Your task to perform on an android device: Show the shopping cart on ebay. Add asus rog to the cart on ebay Image 0: 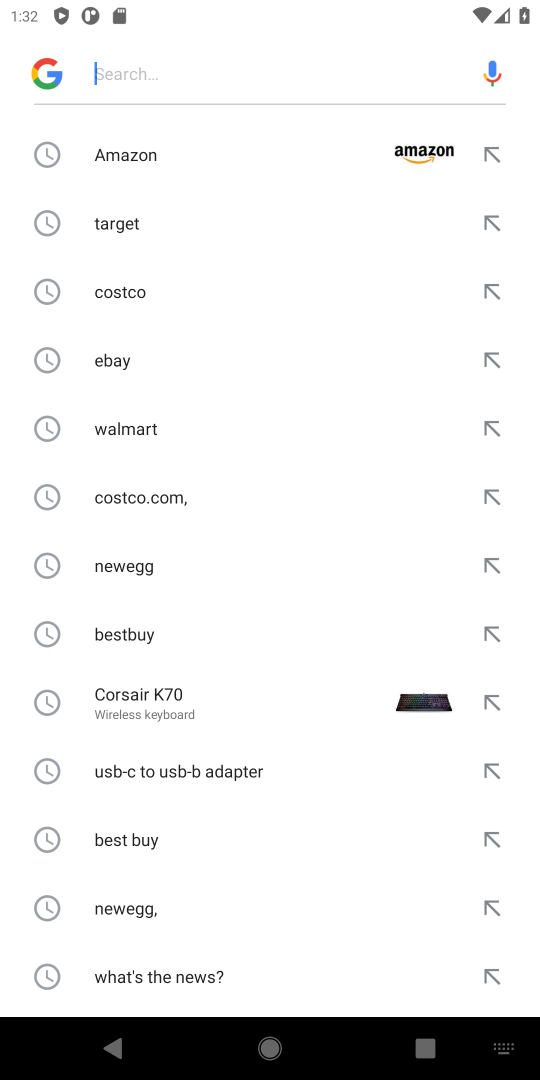
Step 0: press home button
Your task to perform on an android device: Show the shopping cart on ebay. Add asus rog to the cart on ebay Image 1: 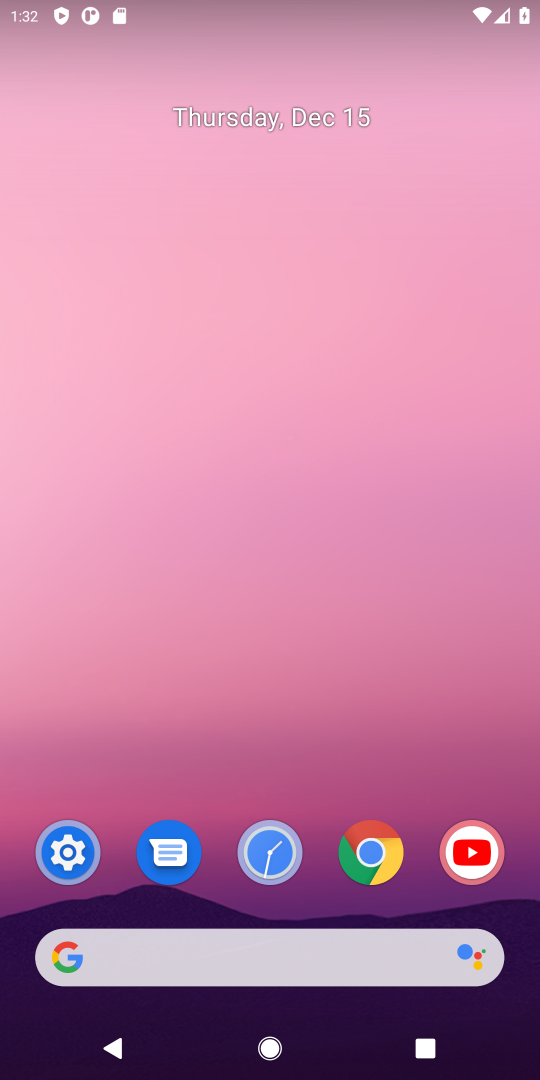
Step 1: click (367, 874)
Your task to perform on an android device: Show the shopping cart on ebay. Add asus rog to the cart on ebay Image 2: 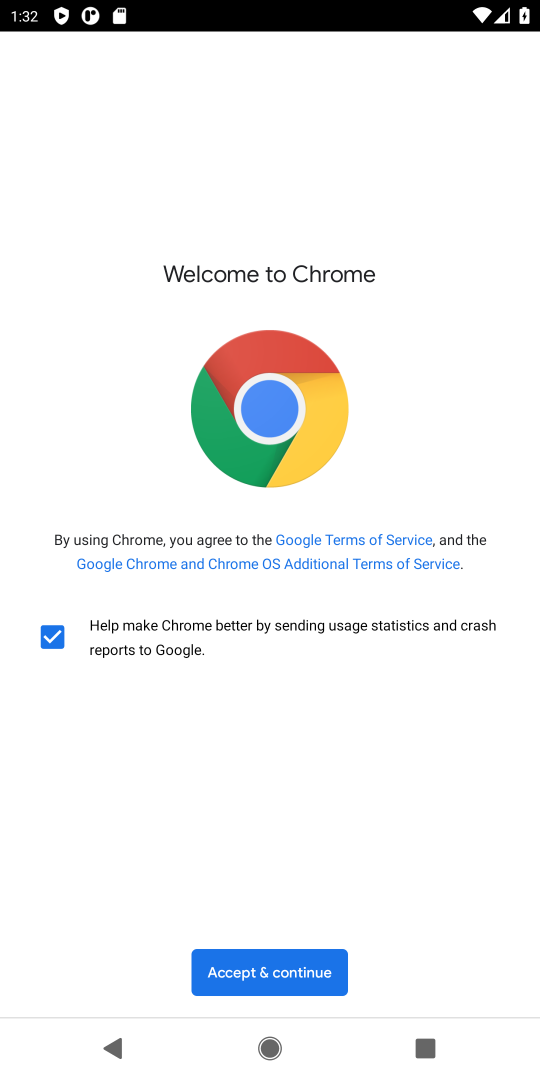
Step 2: click (259, 976)
Your task to perform on an android device: Show the shopping cart on ebay. Add asus rog to the cart on ebay Image 3: 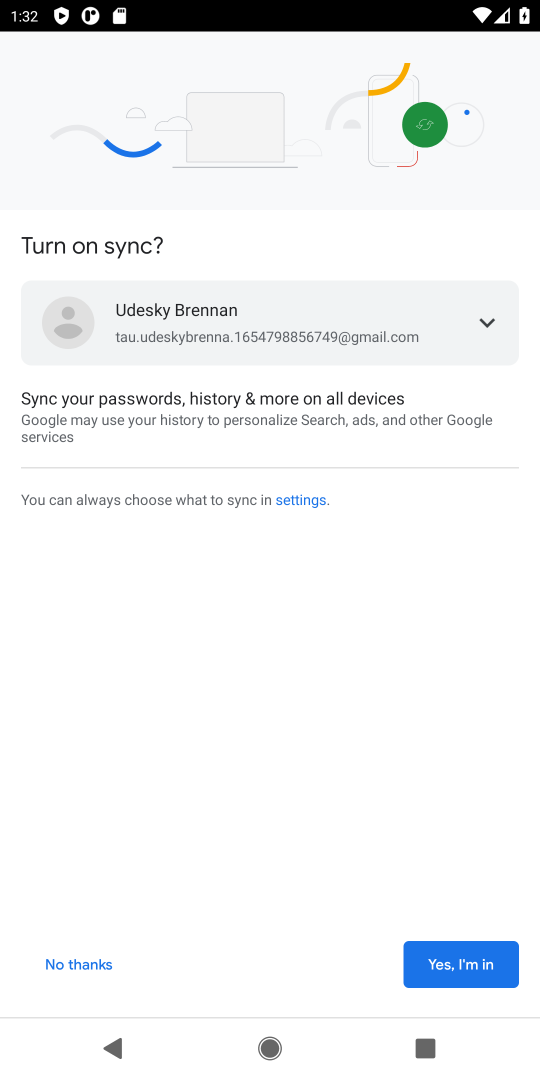
Step 3: click (447, 956)
Your task to perform on an android device: Show the shopping cart on ebay. Add asus rog to the cart on ebay Image 4: 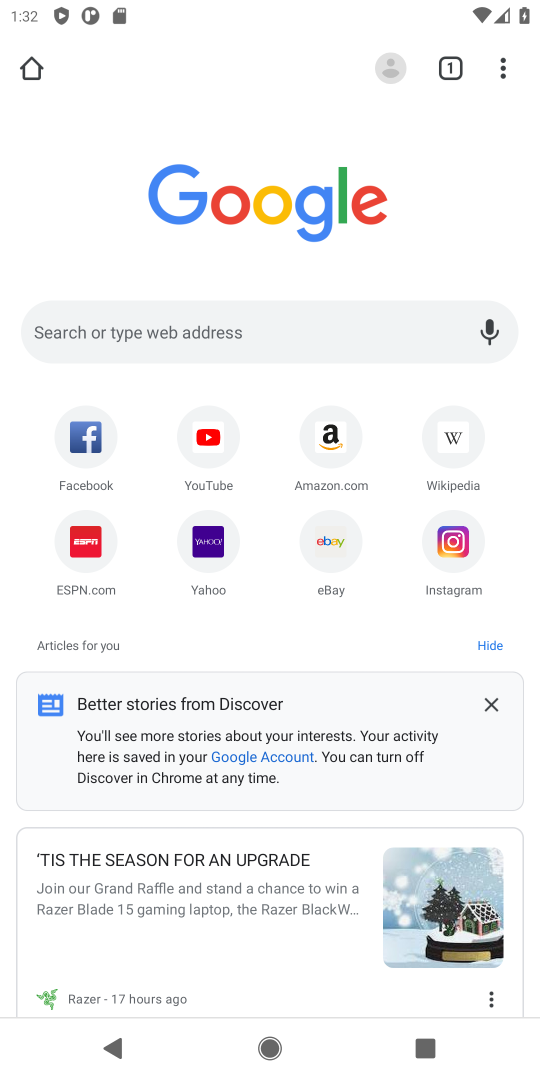
Step 4: click (163, 332)
Your task to perform on an android device: Show the shopping cart on ebay. Add asus rog to the cart on ebay Image 5: 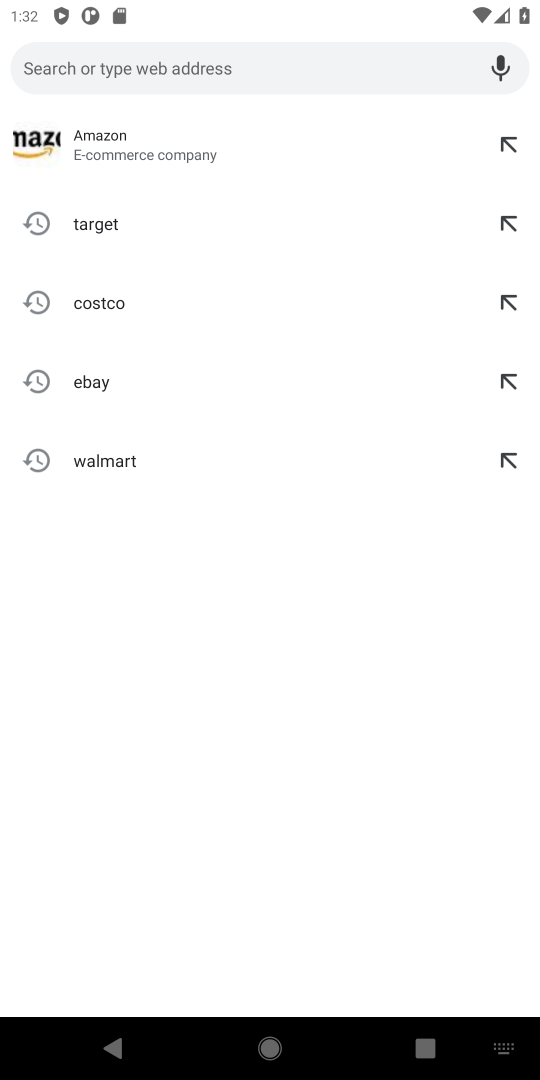
Step 5: type "ebay"
Your task to perform on an android device: Show the shopping cart on ebay. Add asus rog to the cart on ebay Image 6: 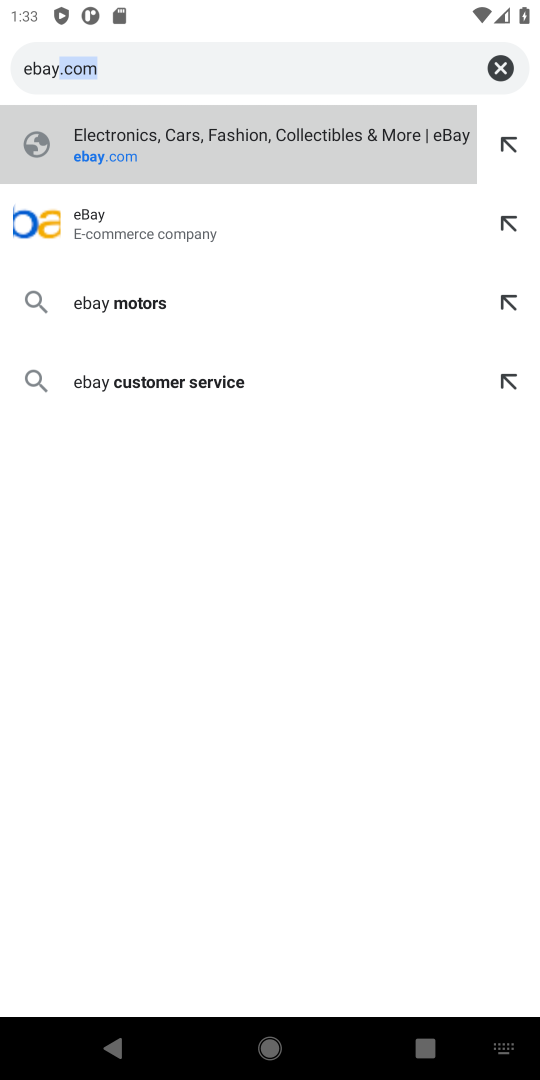
Step 6: click (252, 138)
Your task to perform on an android device: Show the shopping cart on ebay. Add asus rog to the cart on ebay Image 7: 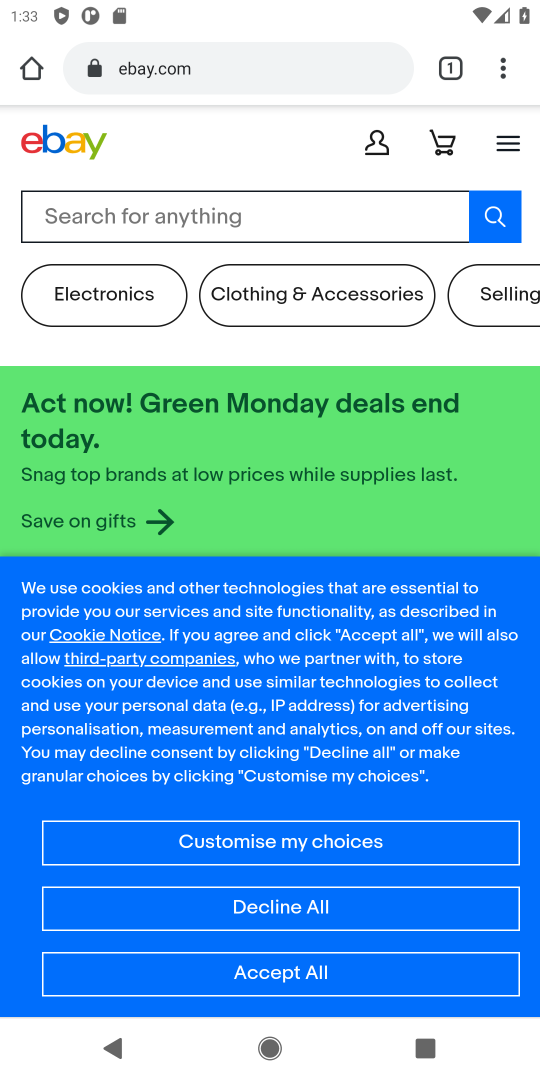
Step 7: click (363, 990)
Your task to perform on an android device: Show the shopping cart on ebay. Add asus rog to the cart on ebay Image 8: 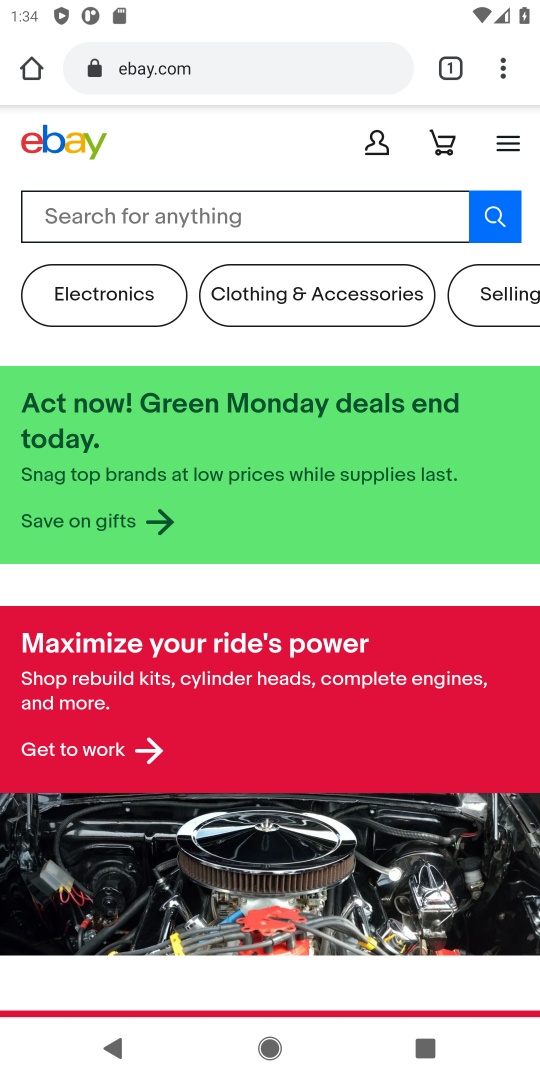
Step 8: click (432, 155)
Your task to perform on an android device: Show the shopping cart on ebay. Add asus rog to the cart on ebay Image 9: 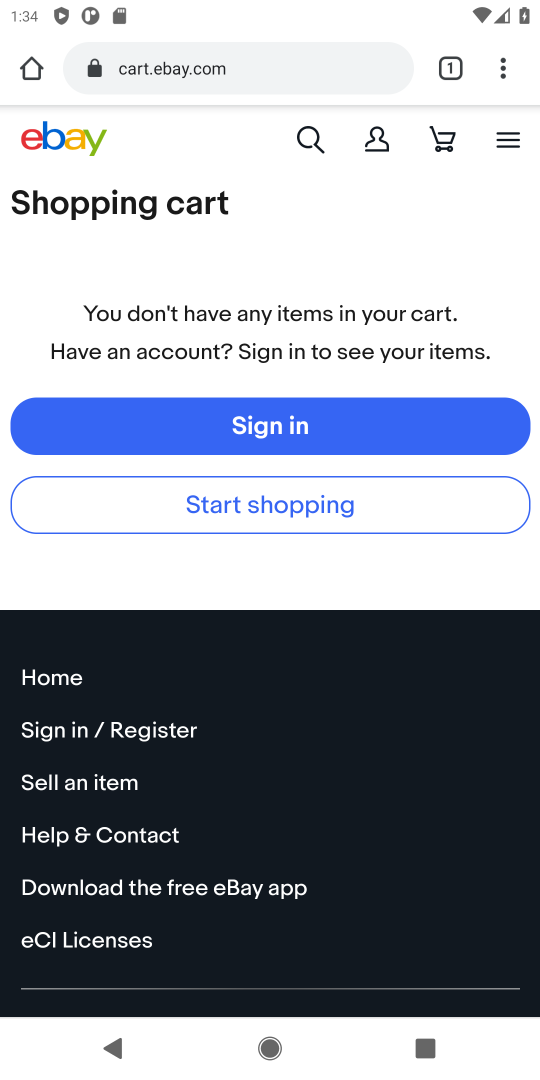
Step 9: click (314, 141)
Your task to perform on an android device: Show the shopping cart on ebay. Add asus rog to the cart on ebay Image 10: 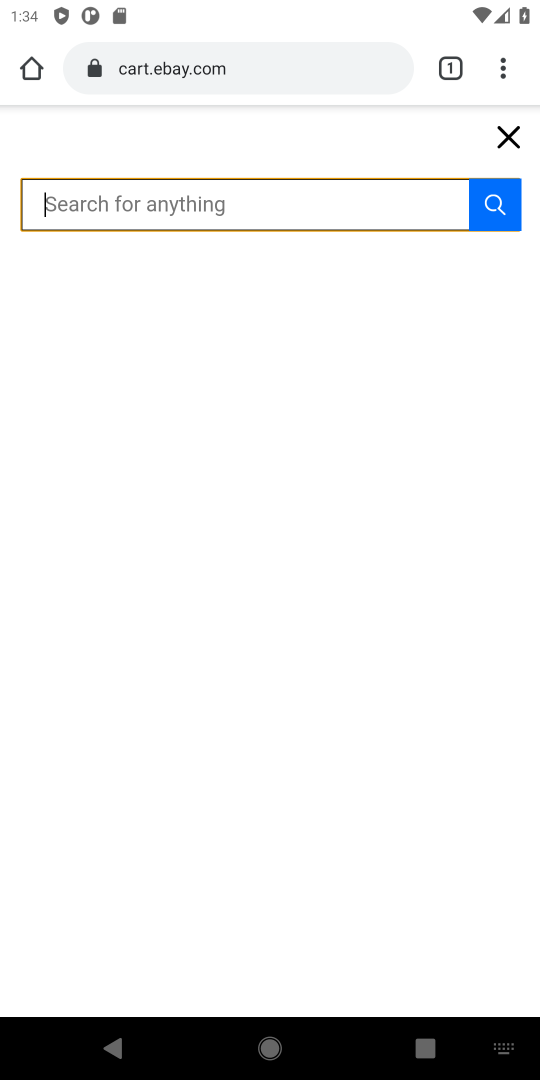
Step 10: type "asus rog"
Your task to perform on an android device: Show the shopping cart on ebay. Add asus rog to the cart on ebay Image 11: 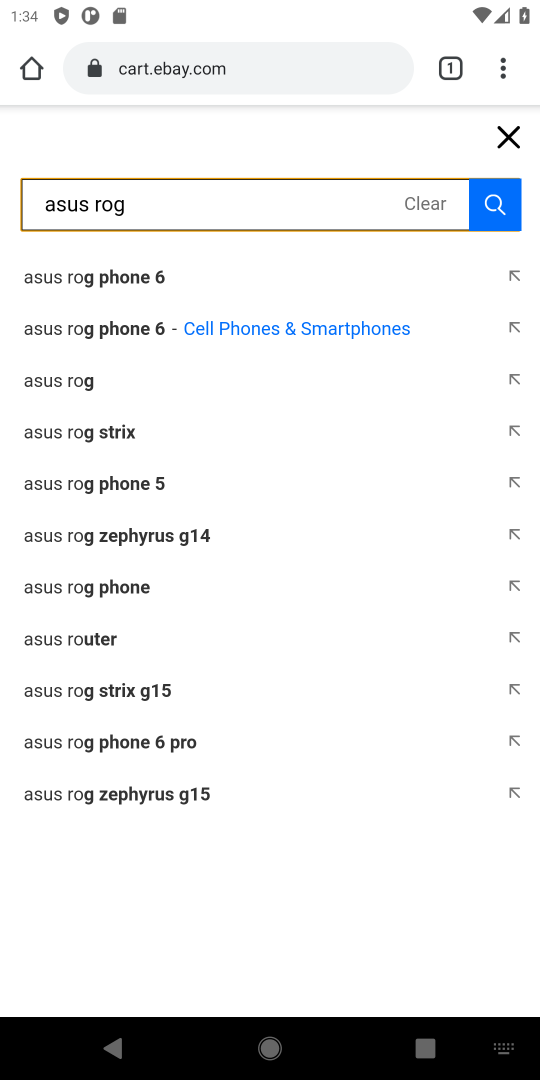
Step 11: click (116, 385)
Your task to perform on an android device: Show the shopping cart on ebay. Add asus rog to the cart on ebay Image 12: 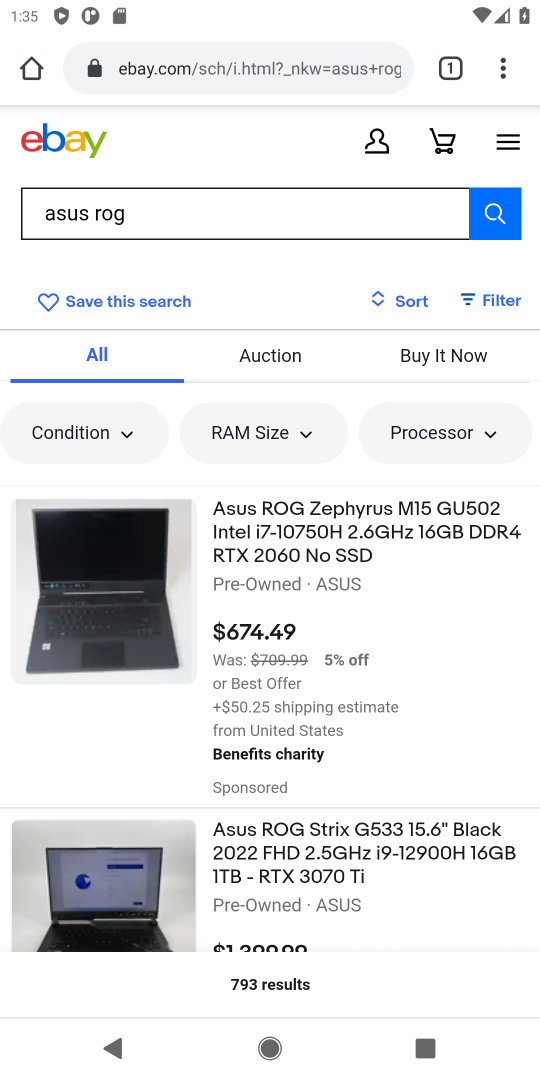
Step 12: click (278, 563)
Your task to perform on an android device: Show the shopping cart on ebay. Add asus rog to the cart on ebay Image 13: 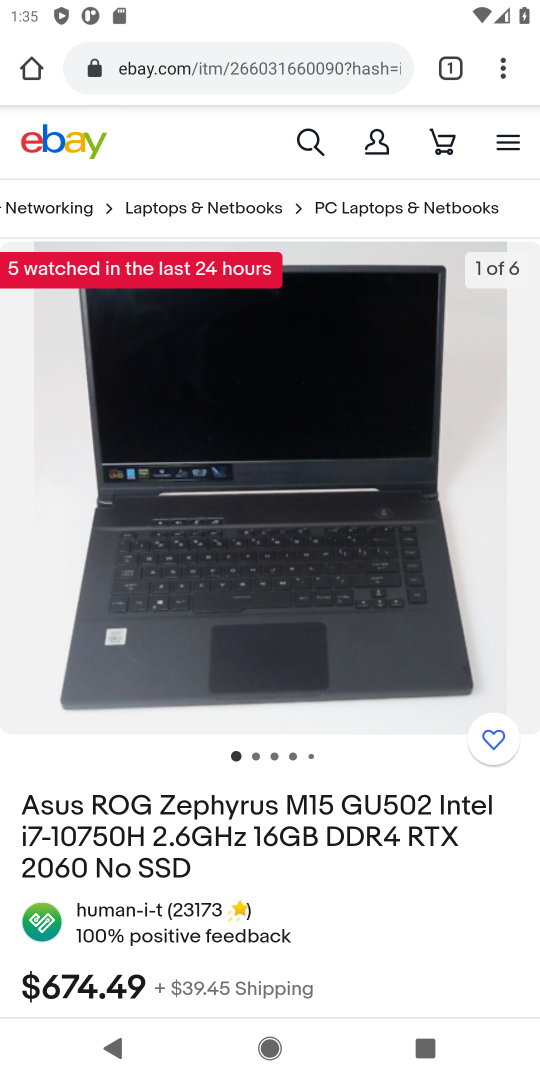
Step 13: drag from (343, 758) to (291, 235)
Your task to perform on an android device: Show the shopping cart on ebay. Add asus rog to the cart on ebay Image 14: 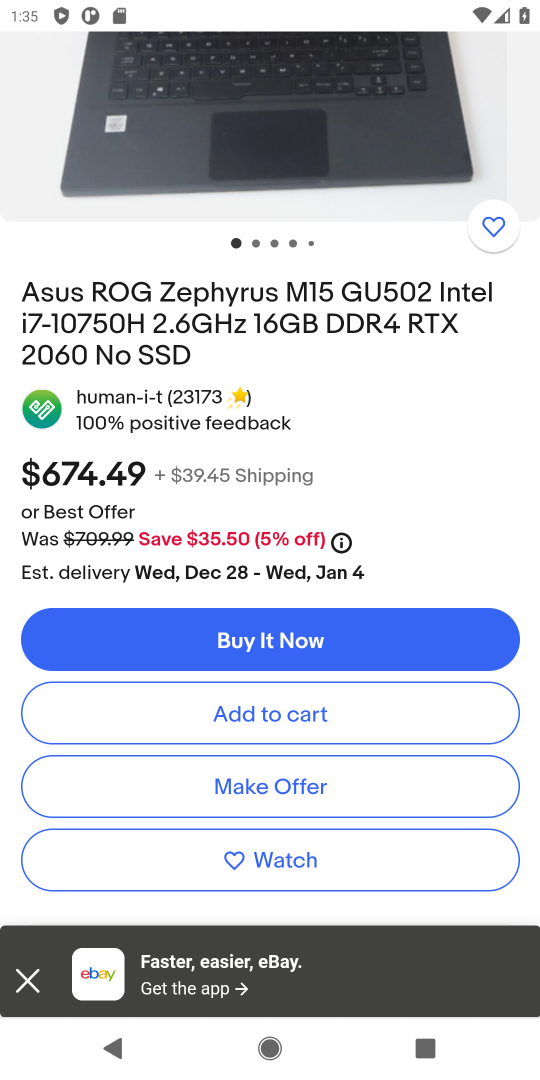
Step 14: click (226, 712)
Your task to perform on an android device: Show the shopping cart on ebay. Add asus rog to the cart on ebay Image 15: 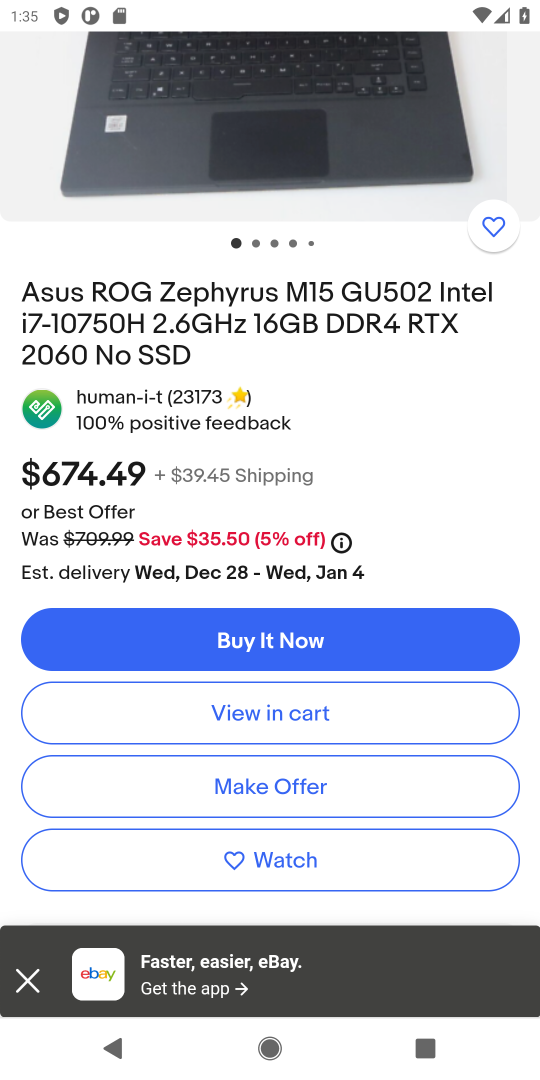
Step 15: click (226, 712)
Your task to perform on an android device: Show the shopping cart on ebay. Add asus rog to the cart on ebay Image 16: 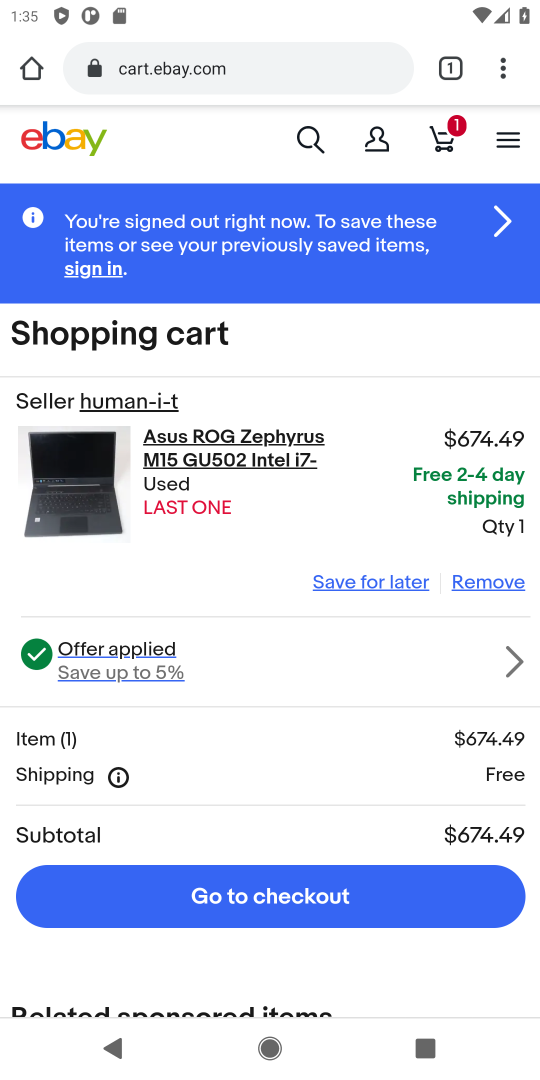
Step 16: task complete